Your task to perform on an android device: Open Google Chrome and open the bookmarks view Image 0: 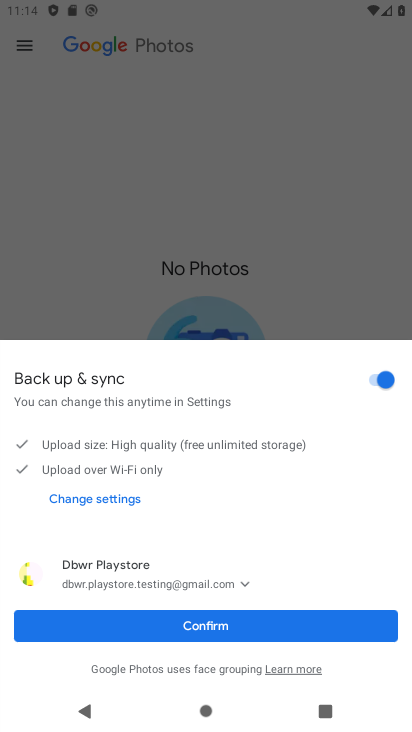
Step 0: press home button
Your task to perform on an android device: Open Google Chrome and open the bookmarks view Image 1: 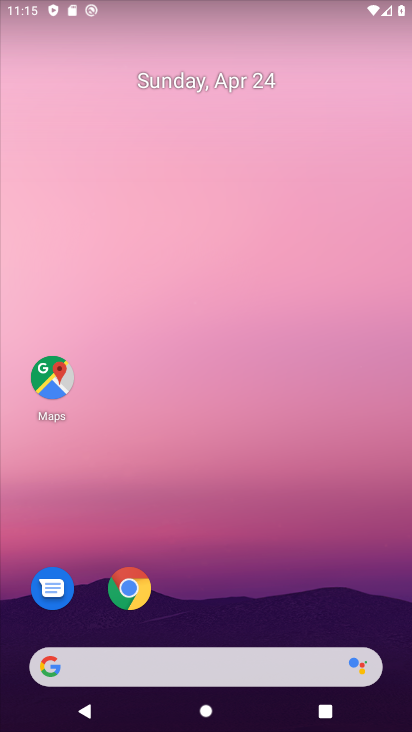
Step 1: click (132, 594)
Your task to perform on an android device: Open Google Chrome and open the bookmarks view Image 2: 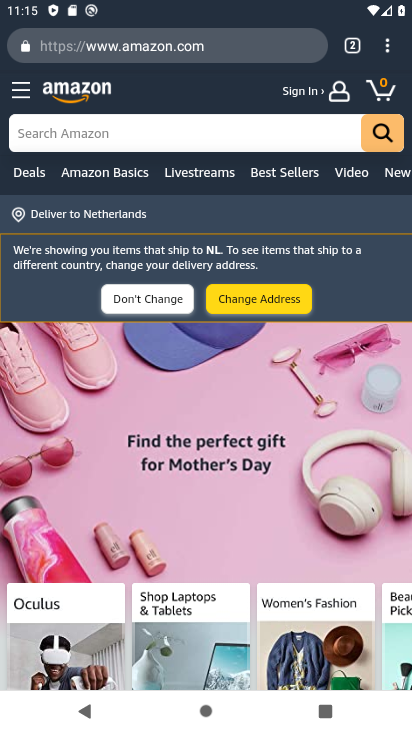
Step 2: click (392, 46)
Your task to perform on an android device: Open Google Chrome and open the bookmarks view Image 3: 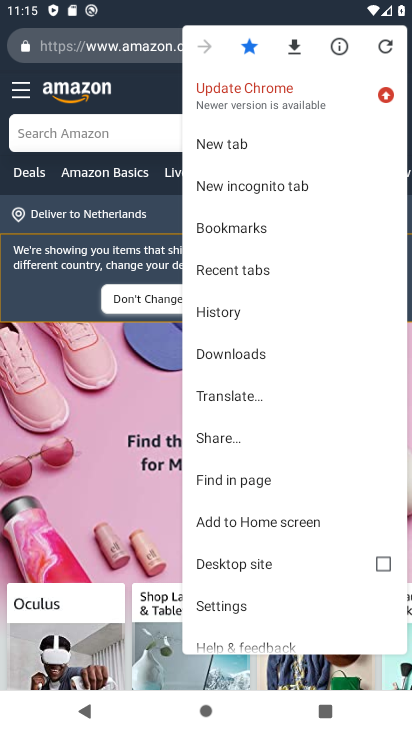
Step 3: click (265, 237)
Your task to perform on an android device: Open Google Chrome and open the bookmarks view Image 4: 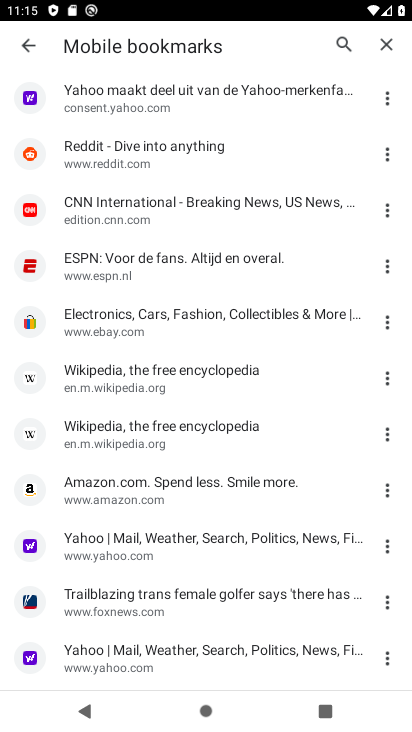
Step 4: task complete